Your task to perform on an android device: Go to internet settings Image 0: 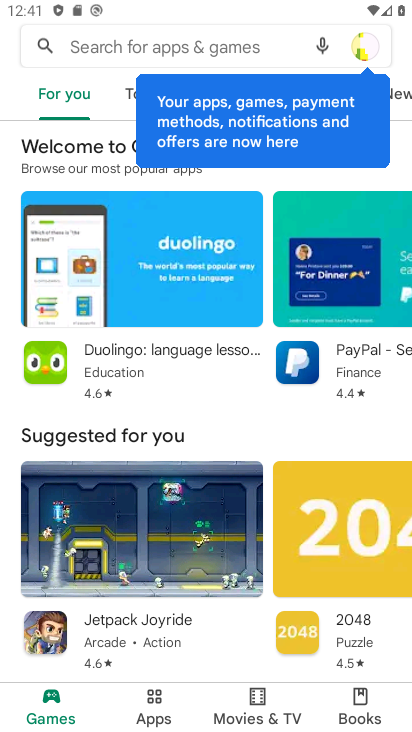
Step 0: press home button
Your task to perform on an android device: Go to internet settings Image 1: 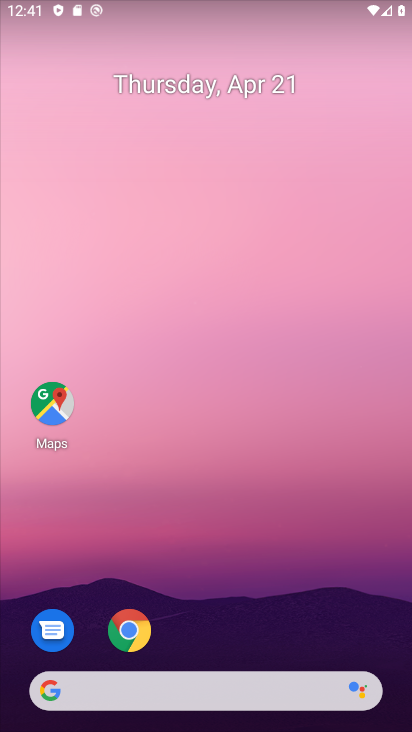
Step 1: drag from (290, 600) to (267, 120)
Your task to perform on an android device: Go to internet settings Image 2: 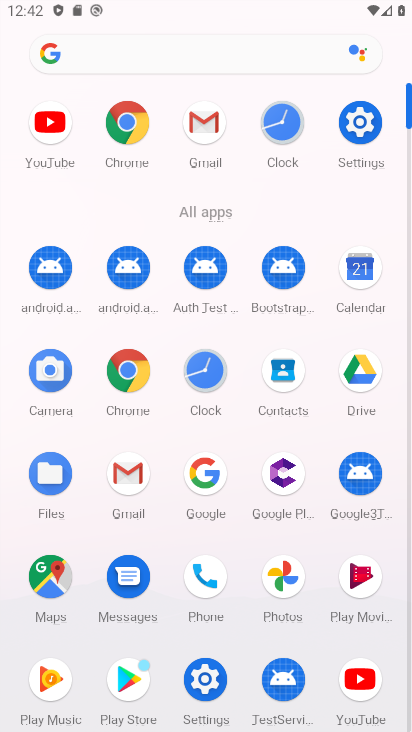
Step 2: click (215, 705)
Your task to perform on an android device: Go to internet settings Image 3: 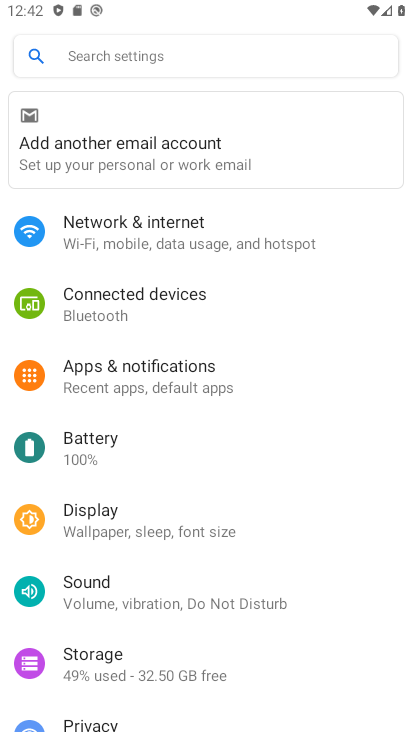
Step 3: click (208, 250)
Your task to perform on an android device: Go to internet settings Image 4: 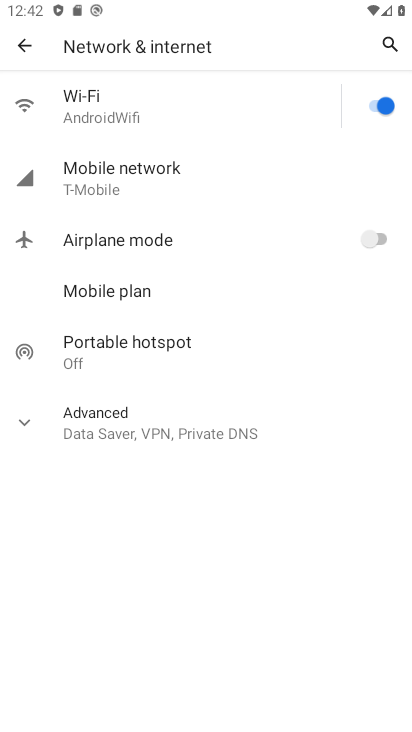
Step 4: task complete